Your task to perform on an android device: toggle improve location accuracy Image 0: 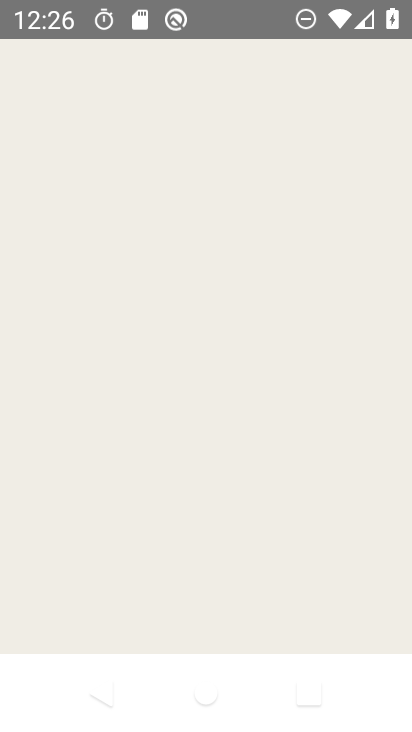
Step 0: press home button
Your task to perform on an android device: toggle improve location accuracy Image 1: 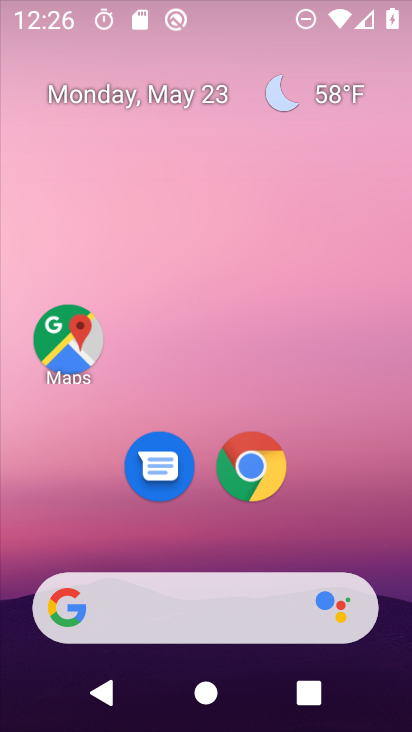
Step 1: drag from (211, 529) to (254, 38)
Your task to perform on an android device: toggle improve location accuracy Image 2: 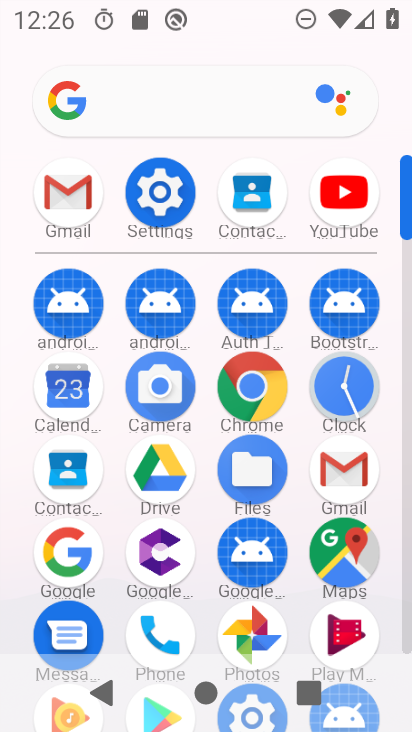
Step 2: click (165, 191)
Your task to perform on an android device: toggle improve location accuracy Image 3: 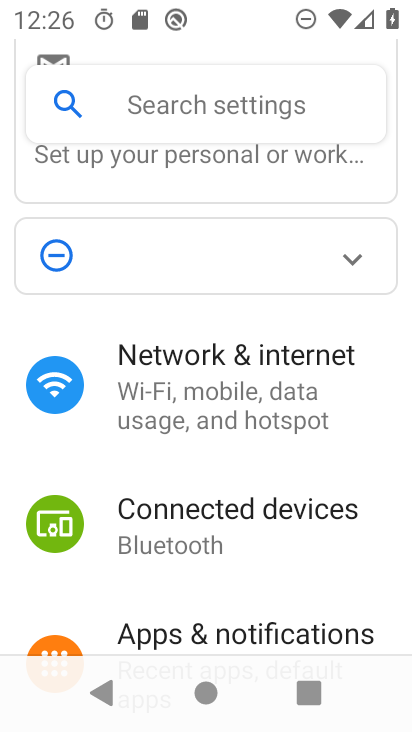
Step 3: drag from (220, 546) to (244, 254)
Your task to perform on an android device: toggle improve location accuracy Image 4: 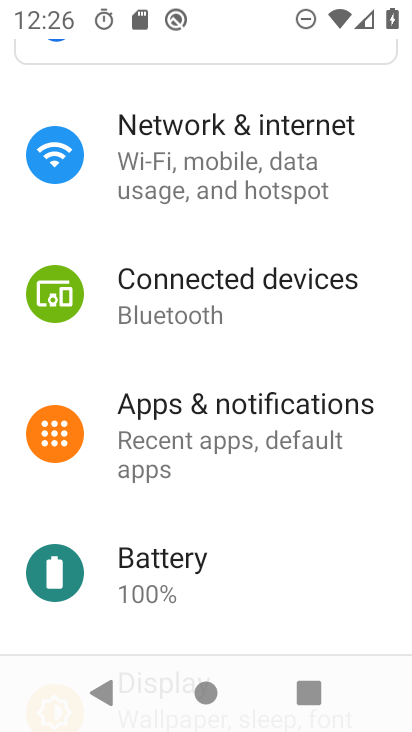
Step 4: drag from (261, 562) to (261, 242)
Your task to perform on an android device: toggle improve location accuracy Image 5: 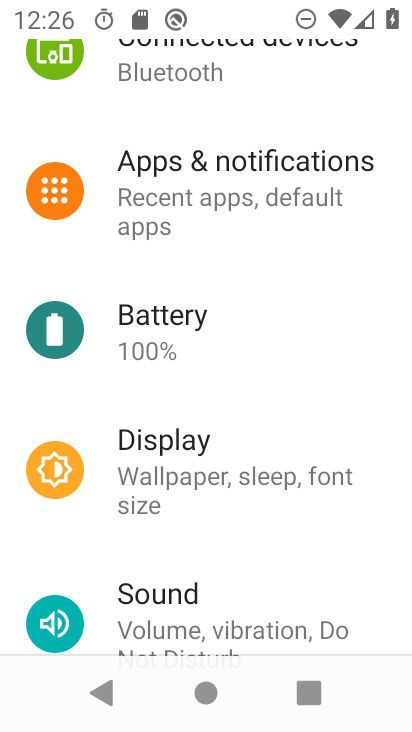
Step 5: drag from (257, 598) to (259, 169)
Your task to perform on an android device: toggle improve location accuracy Image 6: 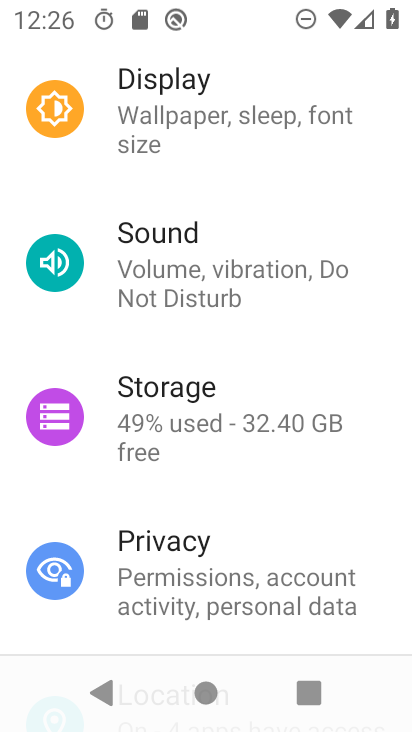
Step 6: drag from (257, 168) to (272, 641)
Your task to perform on an android device: toggle improve location accuracy Image 7: 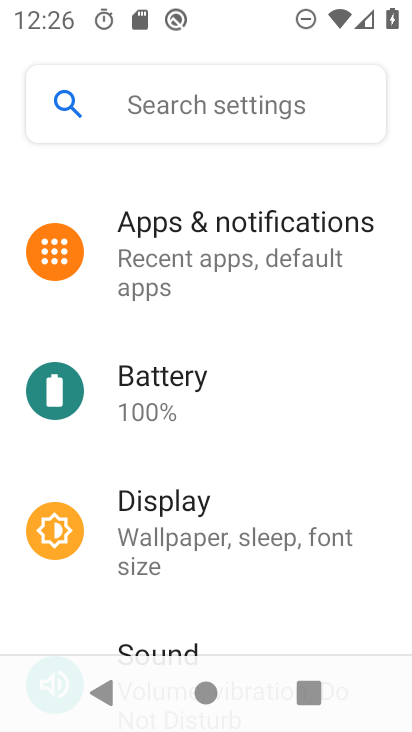
Step 7: drag from (255, 591) to (256, 146)
Your task to perform on an android device: toggle improve location accuracy Image 8: 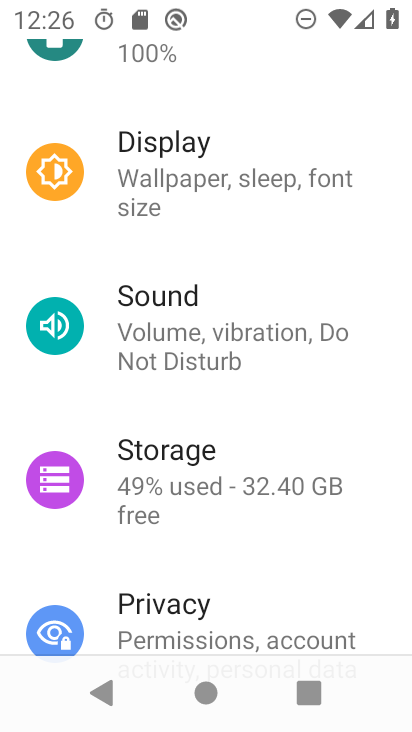
Step 8: drag from (240, 568) to (247, 139)
Your task to perform on an android device: toggle improve location accuracy Image 9: 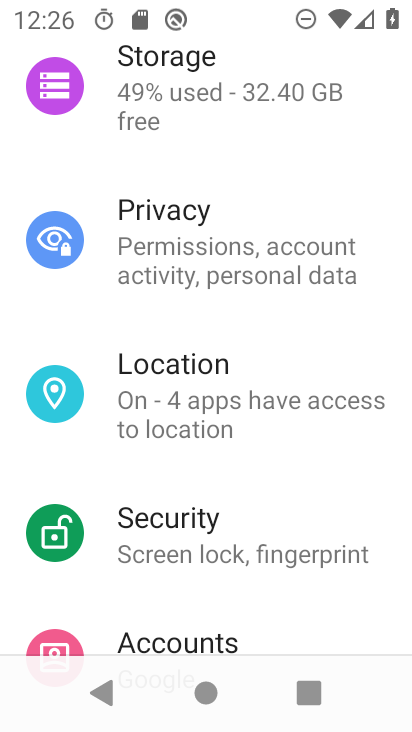
Step 9: click (197, 355)
Your task to perform on an android device: toggle improve location accuracy Image 10: 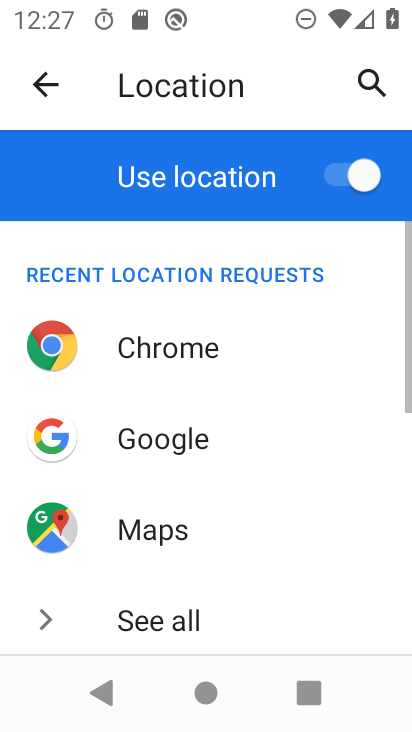
Step 10: drag from (264, 620) to (236, 114)
Your task to perform on an android device: toggle improve location accuracy Image 11: 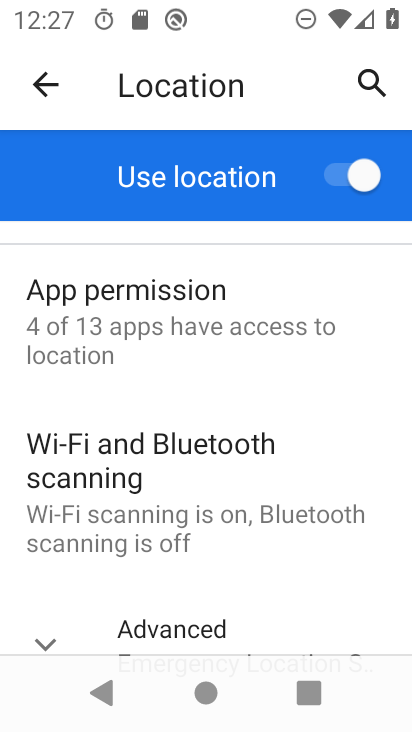
Step 11: drag from (154, 628) to (165, 294)
Your task to perform on an android device: toggle improve location accuracy Image 12: 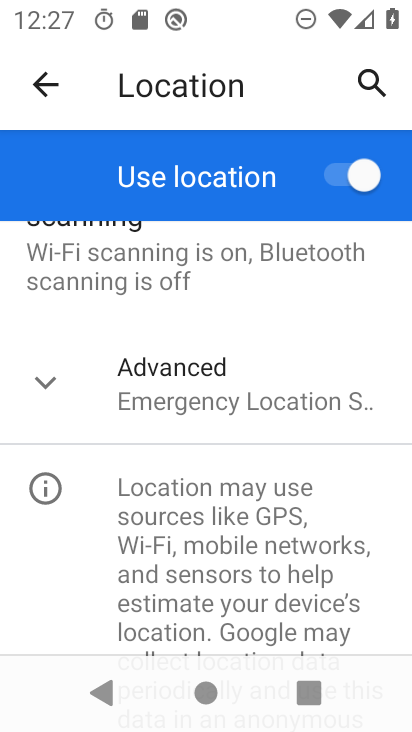
Step 12: click (153, 393)
Your task to perform on an android device: toggle improve location accuracy Image 13: 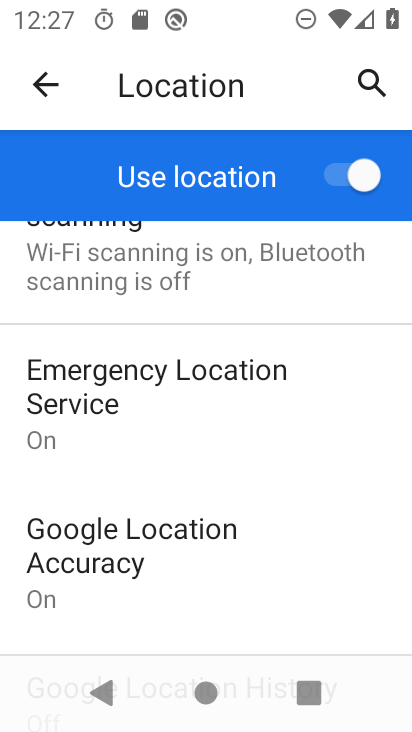
Step 13: click (159, 549)
Your task to perform on an android device: toggle improve location accuracy Image 14: 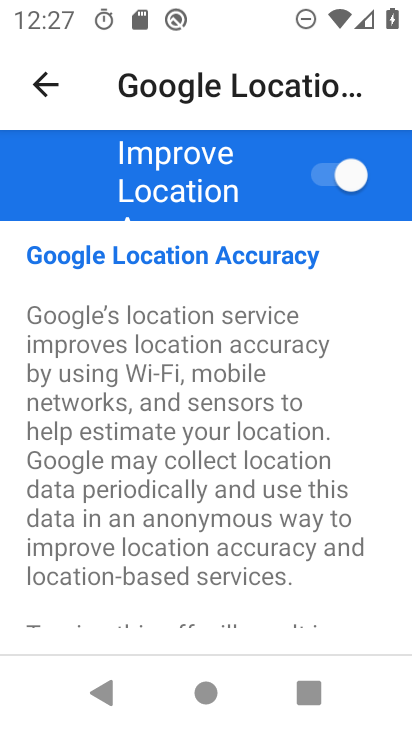
Step 14: click (347, 173)
Your task to perform on an android device: toggle improve location accuracy Image 15: 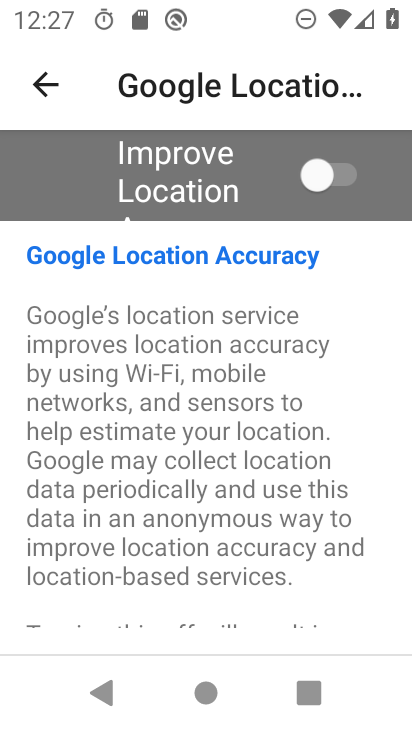
Step 15: task complete